Your task to perform on an android device: Open maps Image 0: 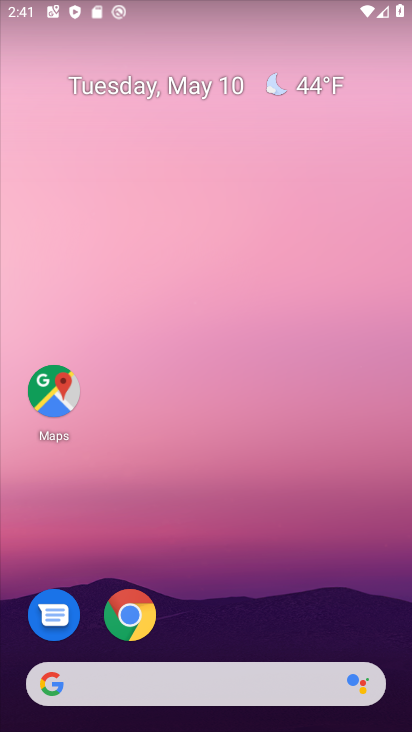
Step 0: click (54, 370)
Your task to perform on an android device: Open maps Image 1: 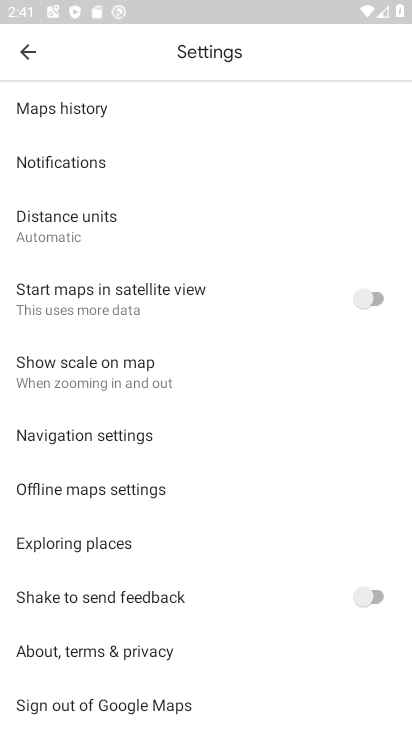
Step 1: task complete